Your task to perform on an android device: Open privacy settings Image 0: 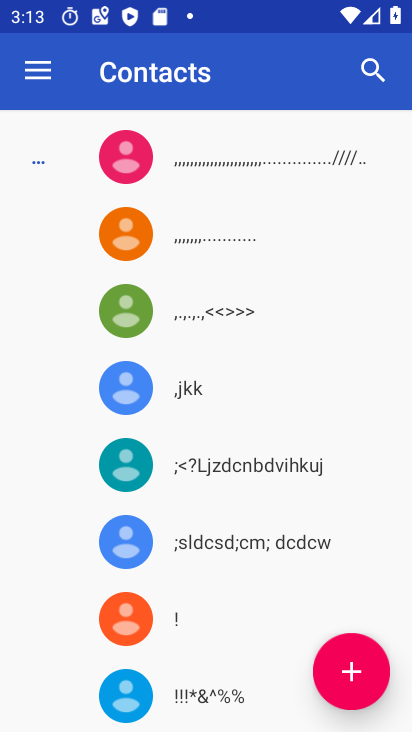
Step 0: press home button
Your task to perform on an android device: Open privacy settings Image 1: 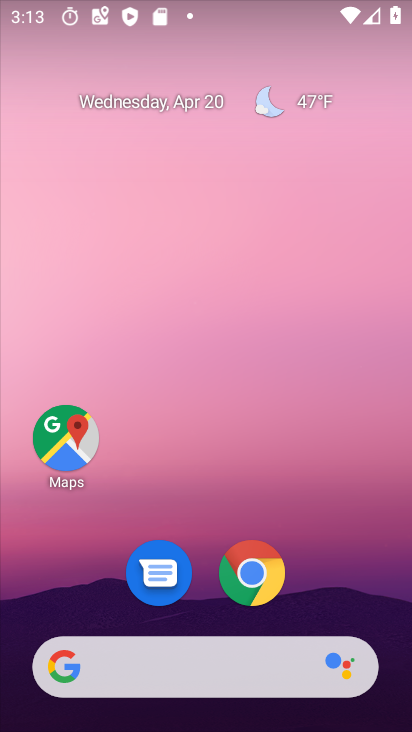
Step 1: drag from (215, 478) to (215, 137)
Your task to perform on an android device: Open privacy settings Image 2: 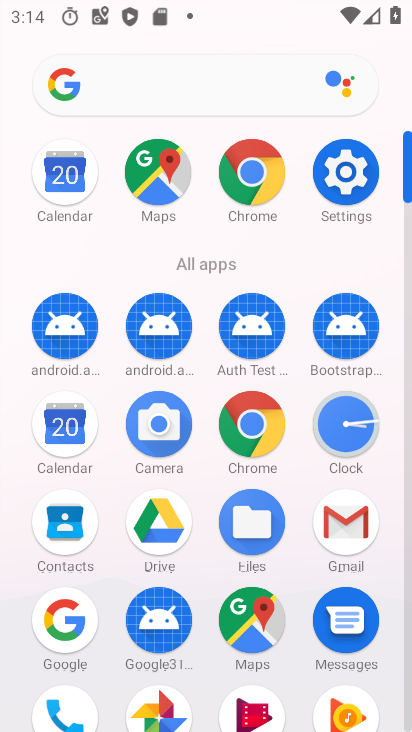
Step 2: click (336, 192)
Your task to perform on an android device: Open privacy settings Image 3: 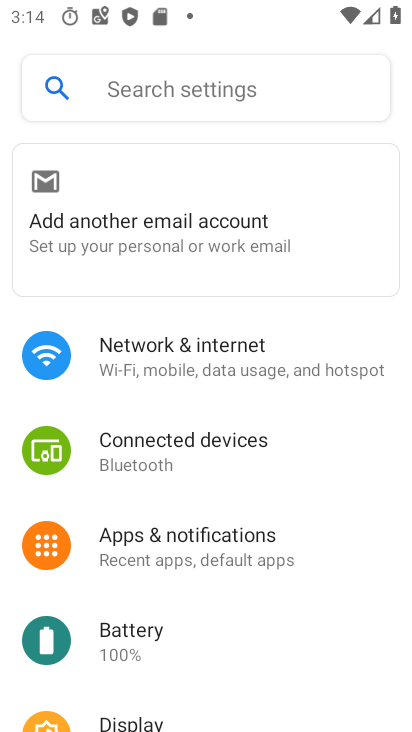
Step 3: drag from (224, 634) to (217, 229)
Your task to perform on an android device: Open privacy settings Image 4: 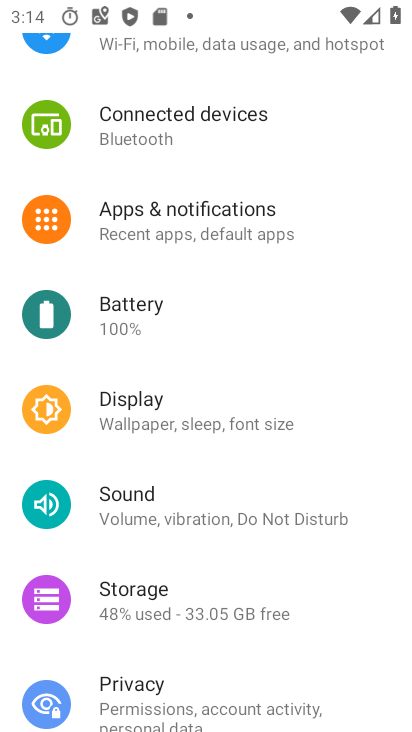
Step 4: drag from (213, 676) to (215, 293)
Your task to perform on an android device: Open privacy settings Image 5: 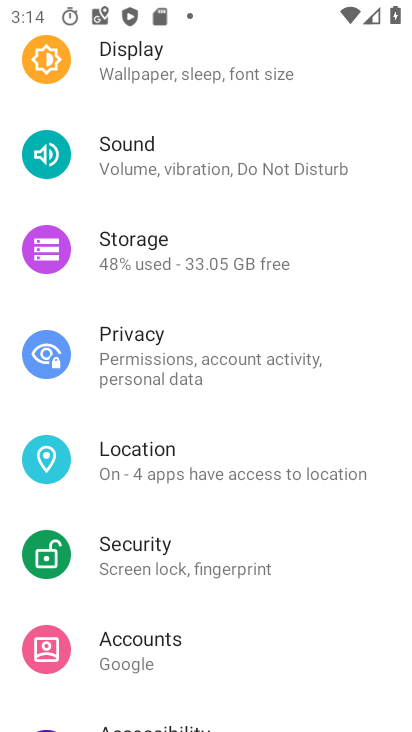
Step 5: click (132, 355)
Your task to perform on an android device: Open privacy settings Image 6: 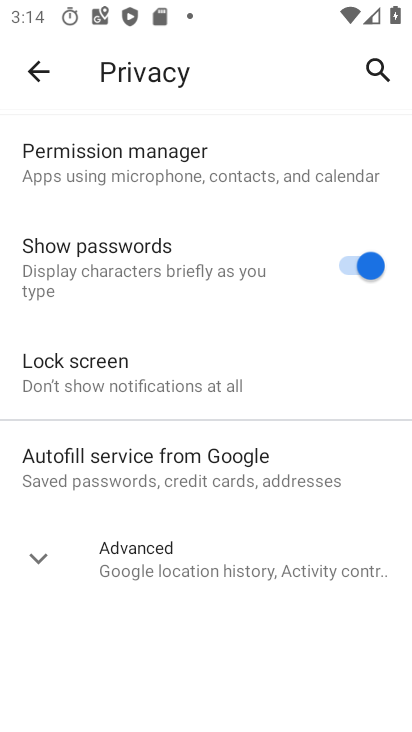
Step 6: task complete